Your task to perform on an android device: toggle sleep mode Image 0: 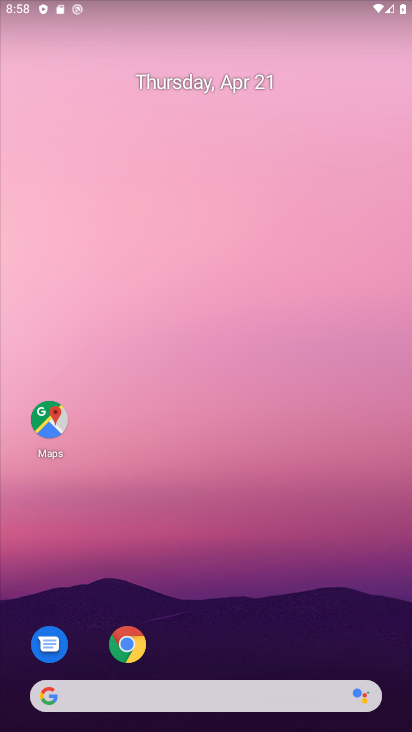
Step 0: drag from (329, 558) to (175, 44)
Your task to perform on an android device: toggle sleep mode Image 1: 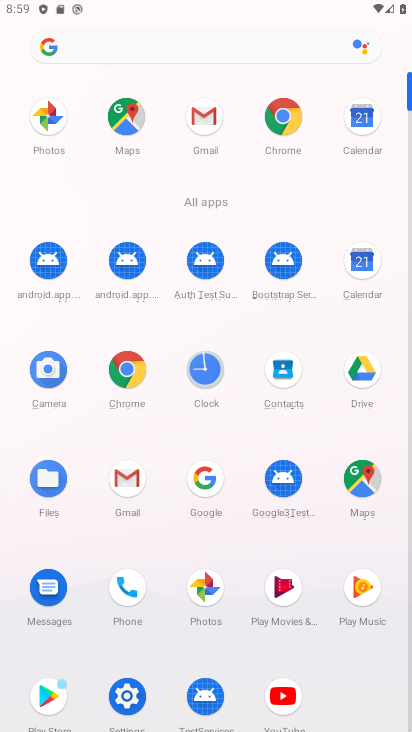
Step 1: click (108, 688)
Your task to perform on an android device: toggle sleep mode Image 2: 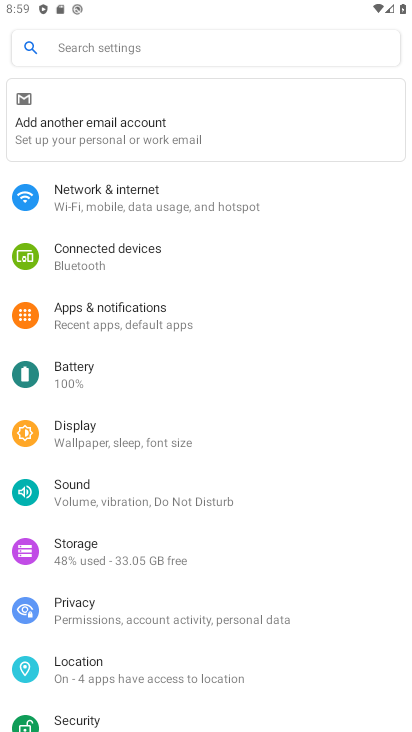
Step 2: click (94, 424)
Your task to perform on an android device: toggle sleep mode Image 3: 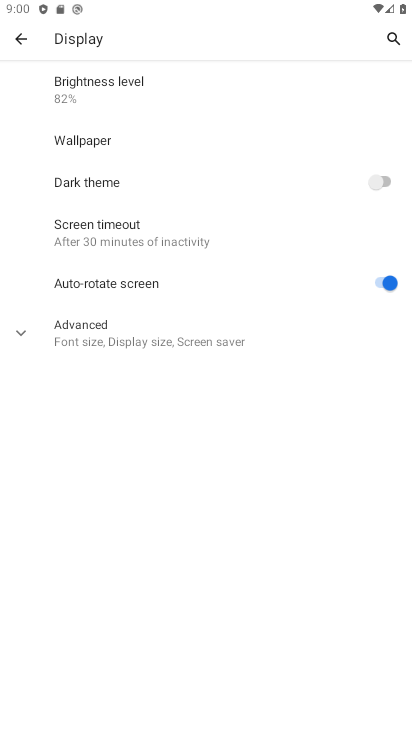
Step 3: click (102, 223)
Your task to perform on an android device: toggle sleep mode Image 4: 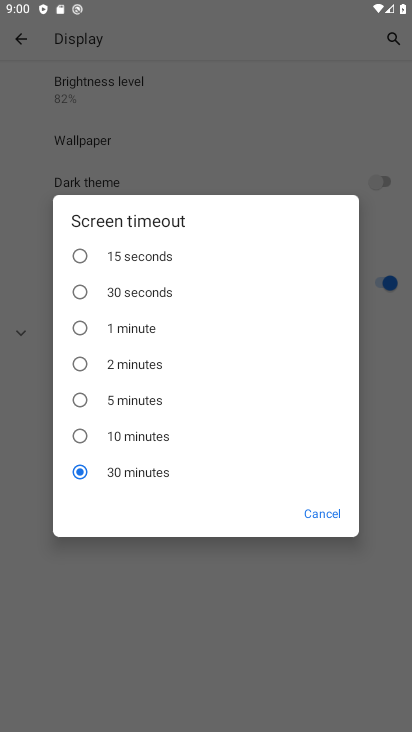
Step 4: click (96, 442)
Your task to perform on an android device: toggle sleep mode Image 5: 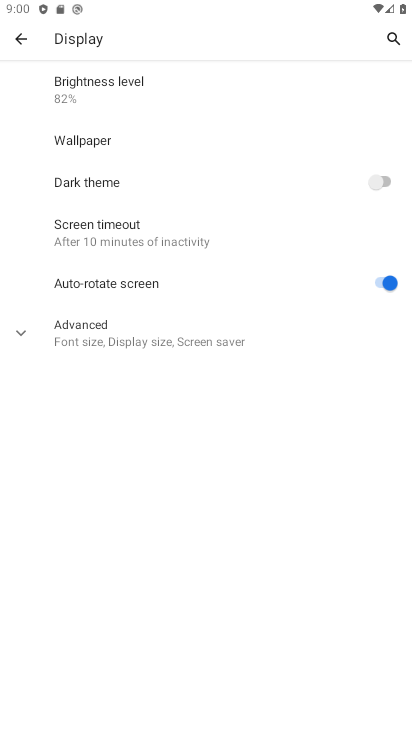
Step 5: task complete